Your task to perform on an android device: toggle sleep mode Image 0: 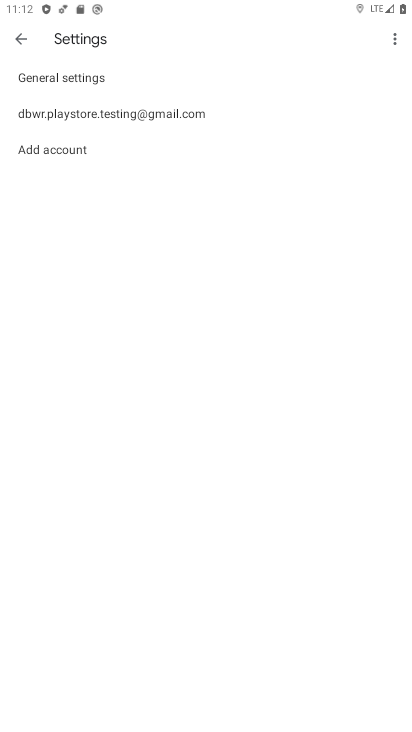
Step 0: press home button
Your task to perform on an android device: toggle sleep mode Image 1: 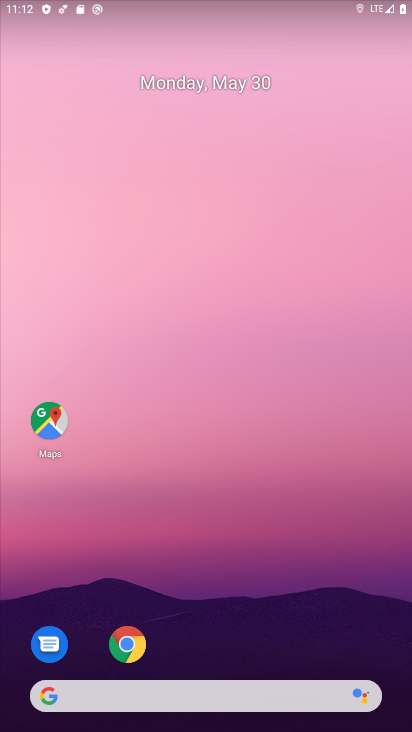
Step 1: drag from (347, 612) to (333, 50)
Your task to perform on an android device: toggle sleep mode Image 2: 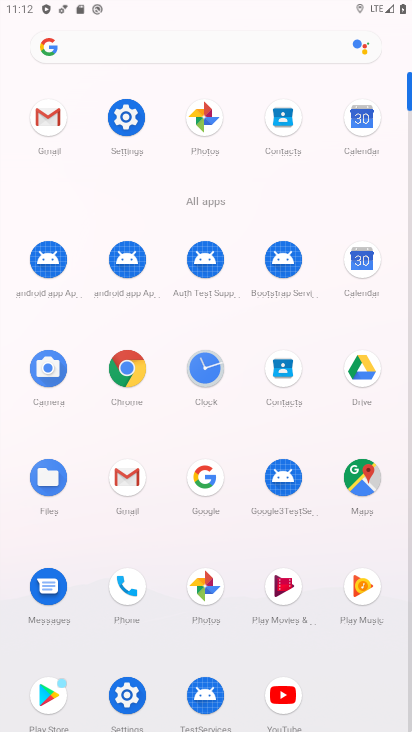
Step 2: click (134, 682)
Your task to perform on an android device: toggle sleep mode Image 3: 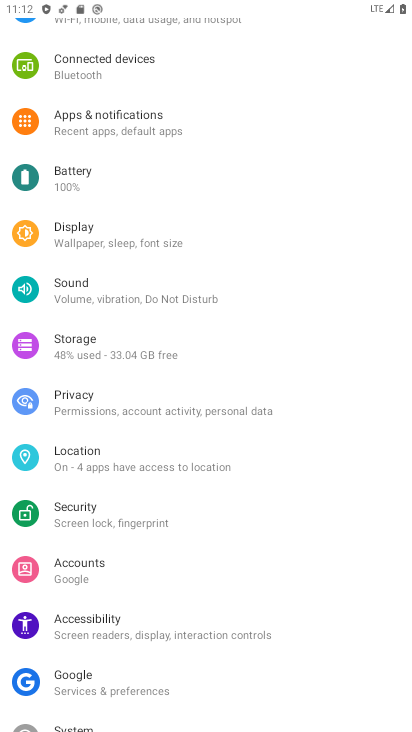
Step 3: click (180, 223)
Your task to perform on an android device: toggle sleep mode Image 4: 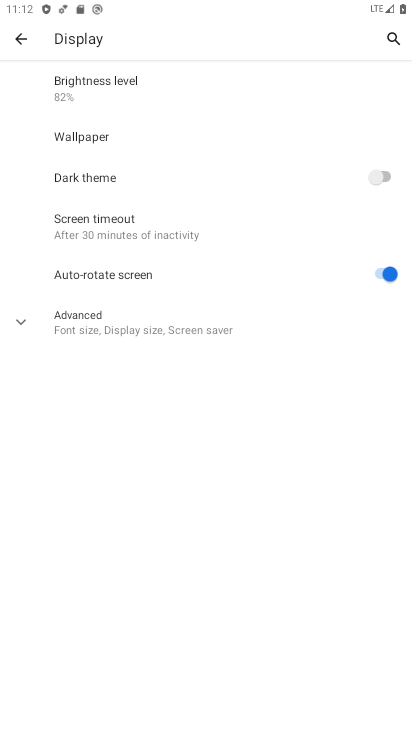
Step 4: task complete